Your task to perform on an android device: make emails show in primary in the gmail app Image 0: 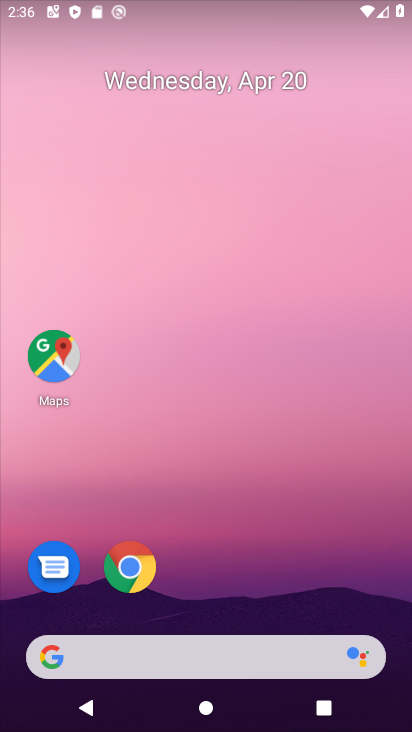
Step 0: click (260, 362)
Your task to perform on an android device: make emails show in primary in the gmail app Image 1: 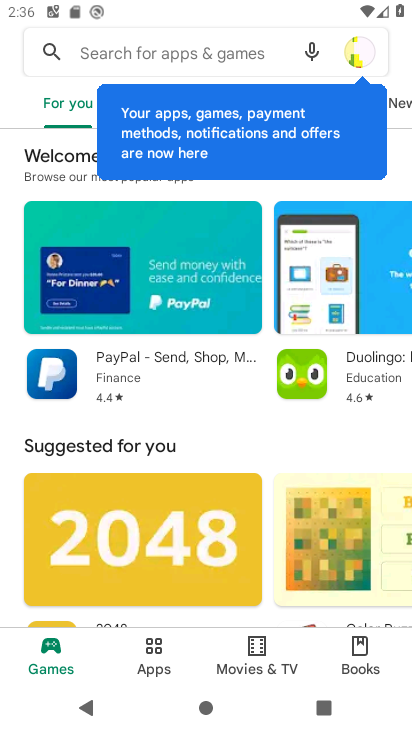
Step 1: press home button
Your task to perform on an android device: make emails show in primary in the gmail app Image 2: 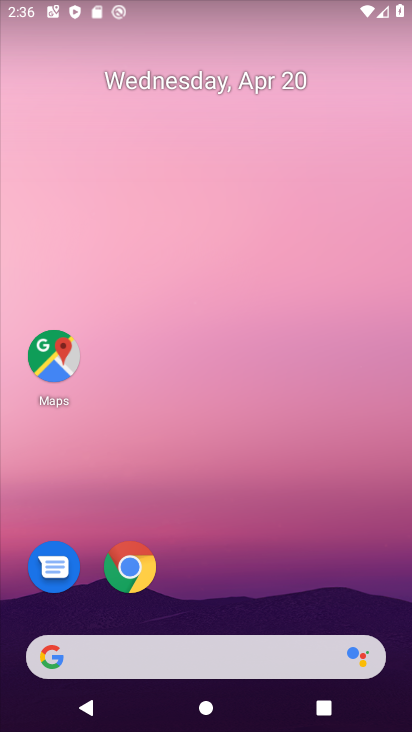
Step 2: drag from (250, 369) to (338, 18)
Your task to perform on an android device: make emails show in primary in the gmail app Image 3: 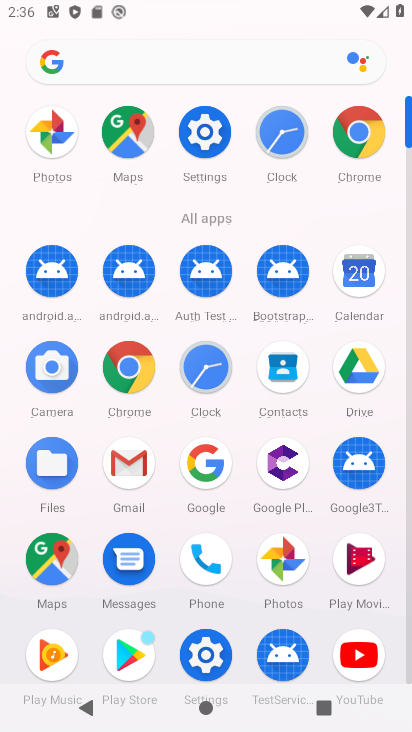
Step 3: click (130, 467)
Your task to perform on an android device: make emails show in primary in the gmail app Image 4: 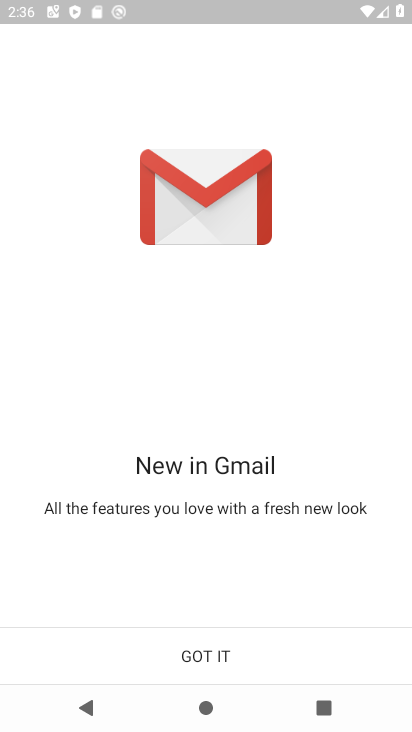
Step 4: click (214, 651)
Your task to perform on an android device: make emails show in primary in the gmail app Image 5: 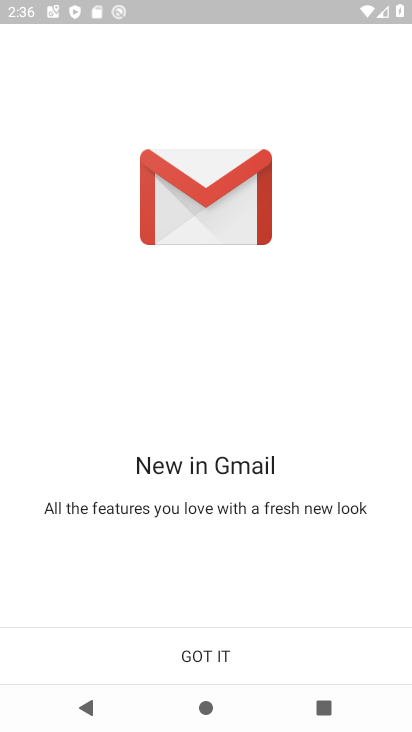
Step 5: click (214, 651)
Your task to perform on an android device: make emails show in primary in the gmail app Image 6: 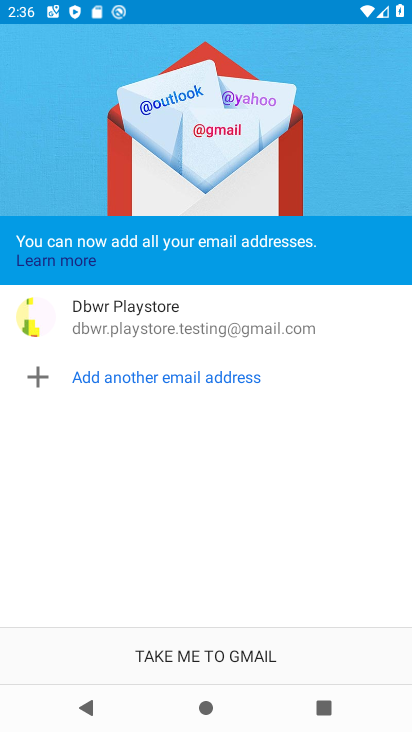
Step 6: click (217, 652)
Your task to perform on an android device: make emails show in primary in the gmail app Image 7: 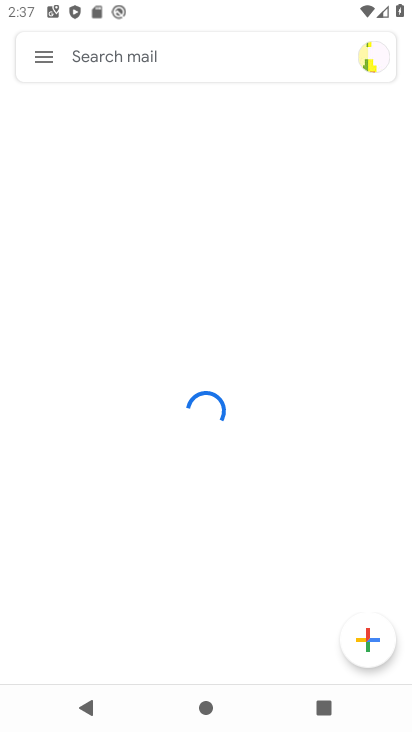
Step 7: click (37, 55)
Your task to perform on an android device: make emails show in primary in the gmail app Image 8: 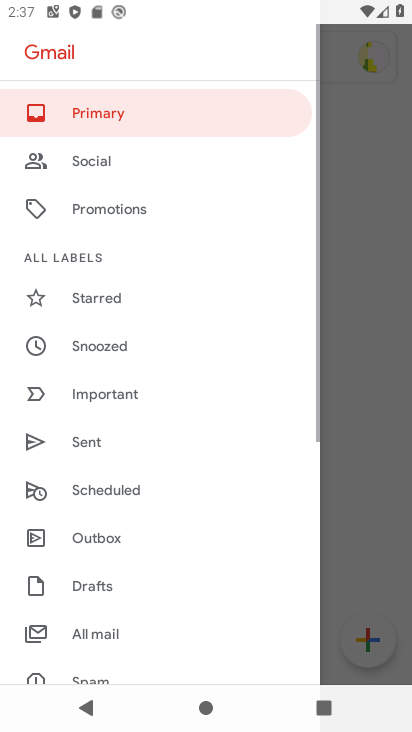
Step 8: drag from (115, 524) to (173, 82)
Your task to perform on an android device: make emails show in primary in the gmail app Image 9: 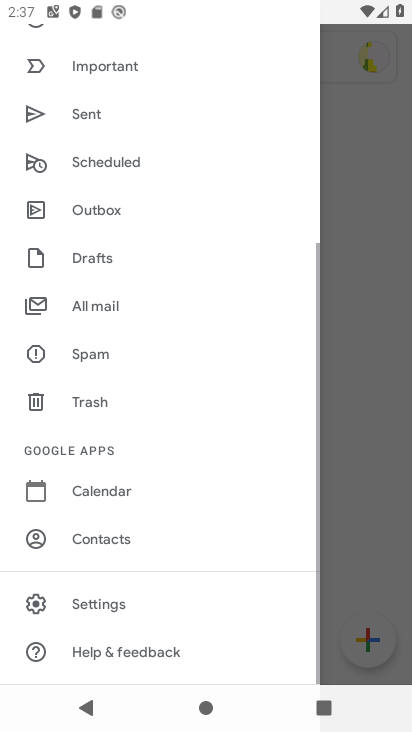
Step 9: drag from (129, 579) to (175, 366)
Your task to perform on an android device: make emails show in primary in the gmail app Image 10: 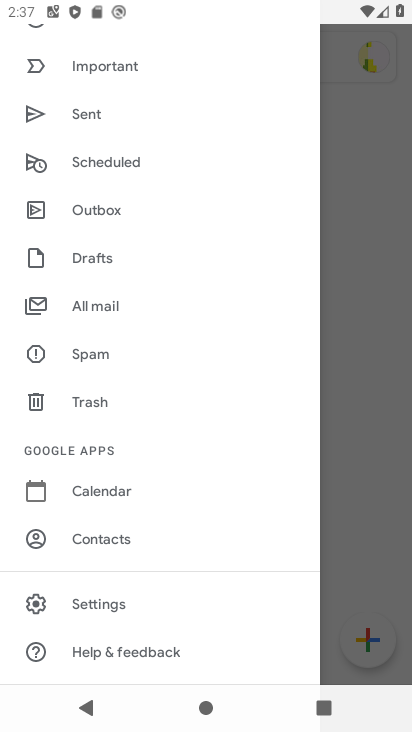
Step 10: click (98, 601)
Your task to perform on an android device: make emails show in primary in the gmail app Image 11: 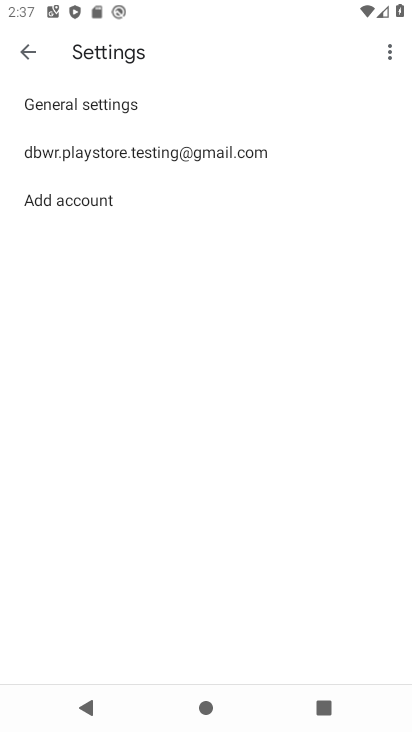
Step 11: click (96, 158)
Your task to perform on an android device: make emails show in primary in the gmail app Image 12: 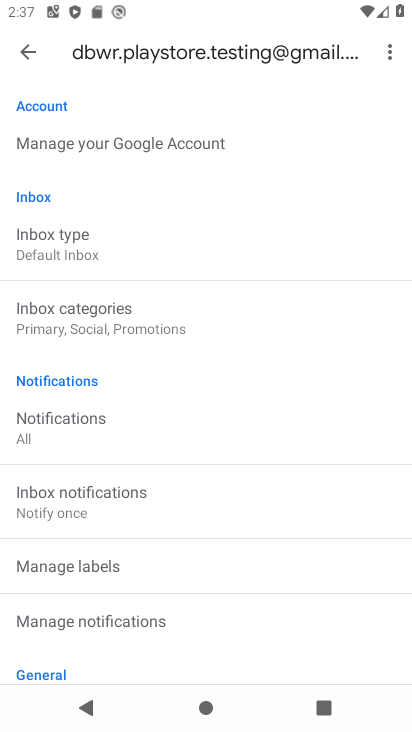
Step 12: click (71, 240)
Your task to perform on an android device: make emails show in primary in the gmail app Image 13: 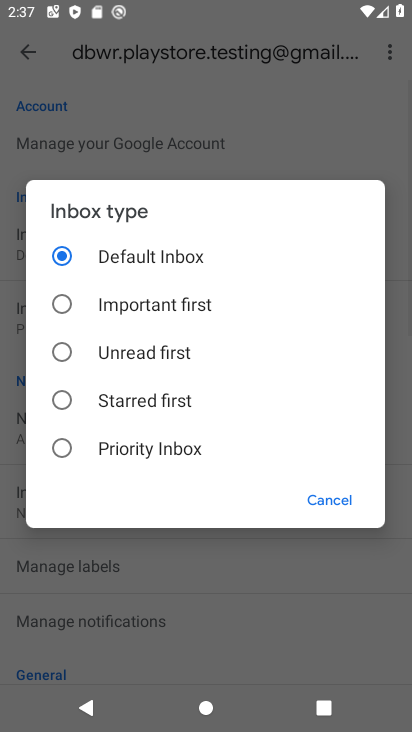
Step 13: click (77, 253)
Your task to perform on an android device: make emails show in primary in the gmail app Image 14: 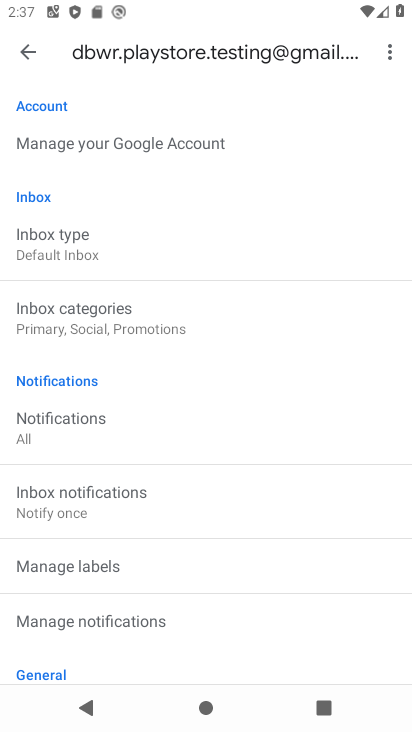
Step 14: click (86, 302)
Your task to perform on an android device: make emails show in primary in the gmail app Image 15: 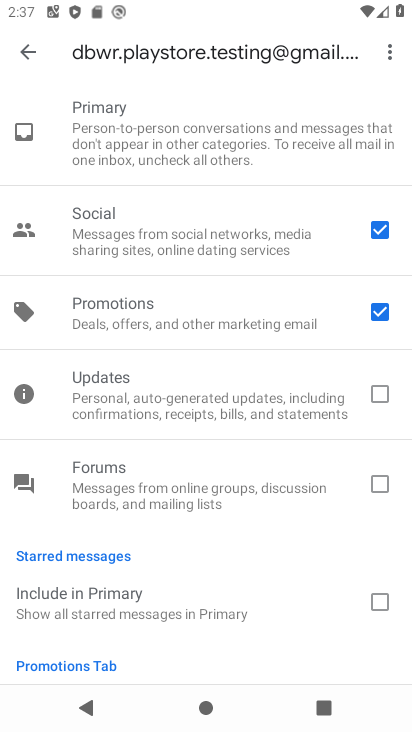
Step 15: click (381, 312)
Your task to perform on an android device: make emails show in primary in the gmail app Image 16: 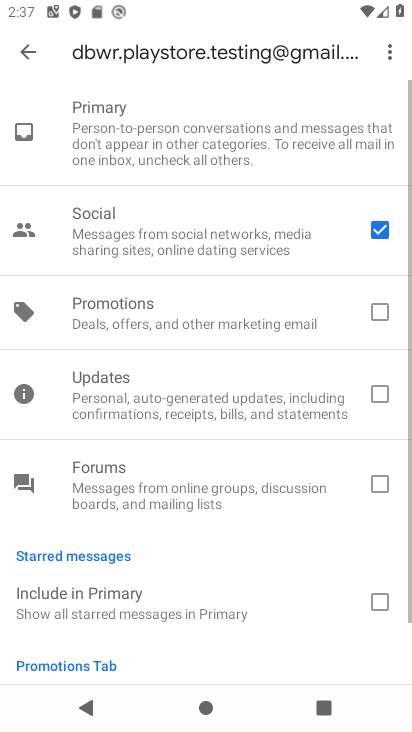
Step 16: click (373, 227)
Your task to perform on an android device: make emails show in primary in the gmail app Image 17: 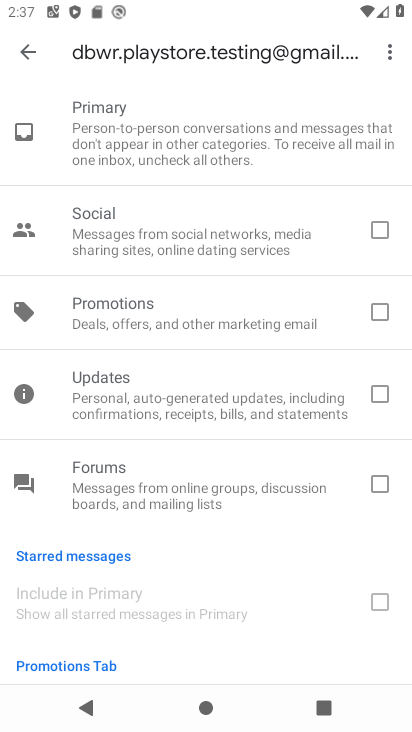
Step 17: click (37, 55)
Your task to perform on an android device: make emails show in primary in the gmail app Image 18: 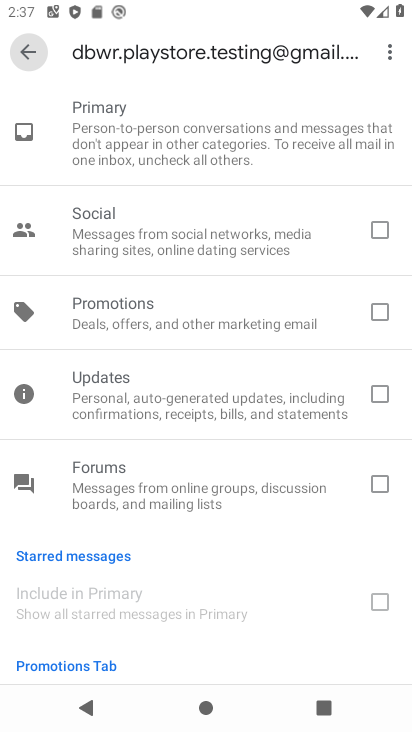
Step 18: click (37, 55)
Your task to perform on an android device: make emails show in primary in the gmail app Image 19: 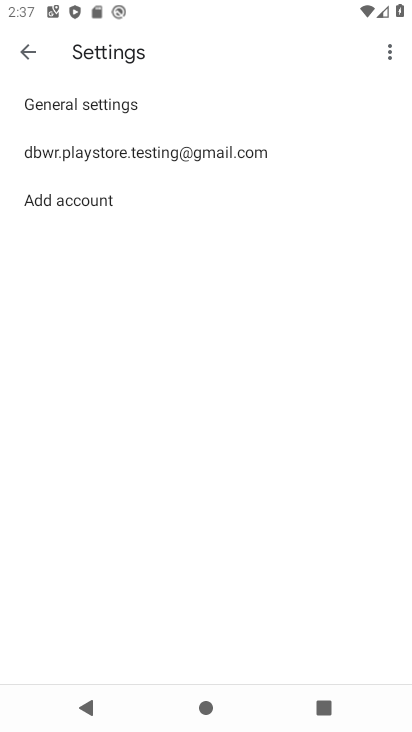
Step 19: task complete